Your task to perform on an android device: Is it going to rain tomorrow? Image 0: 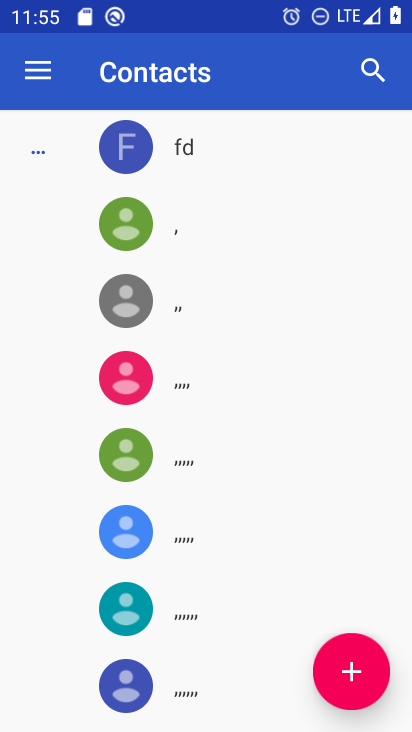
Step 0: press home button
Your task to perform on an android device: Is it going to rain tomorrow? Image 1: 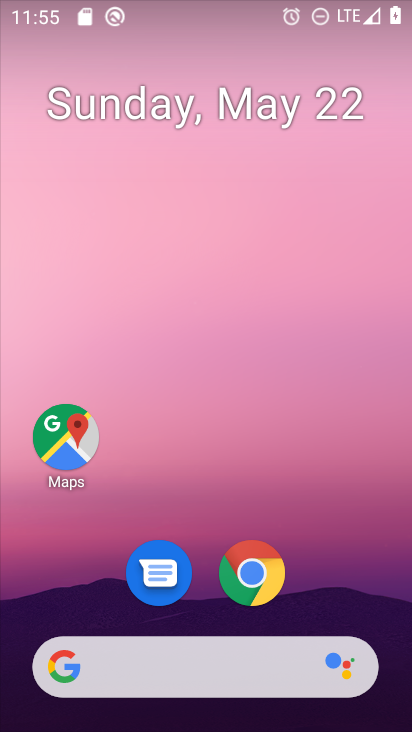
Step 1: click (171, 663)
Your task to perform on an android device: Is it going to rain tomorrow? Image 2: 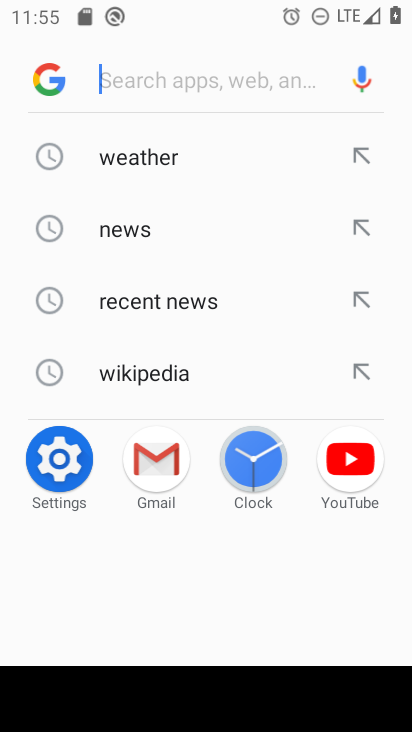
Step 2: type "is it going to rain tomorrow"
Your task to perform on an android device: Is it going to rain tomorrow? Image 3: 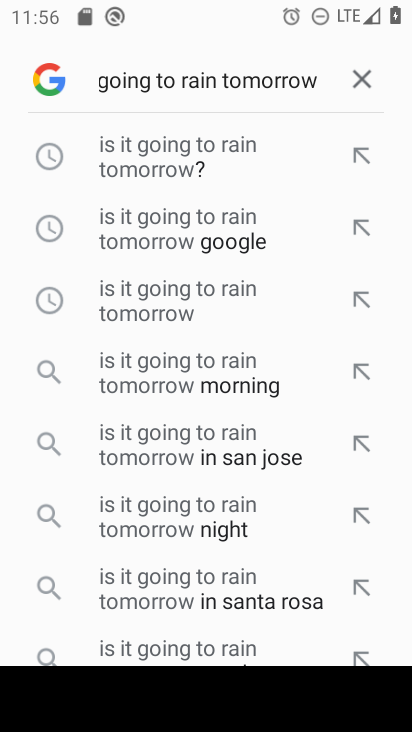
Step 3: click (203, 149)
Your task to perform on an android device: Is it going to rain tomorrow? Image 4: 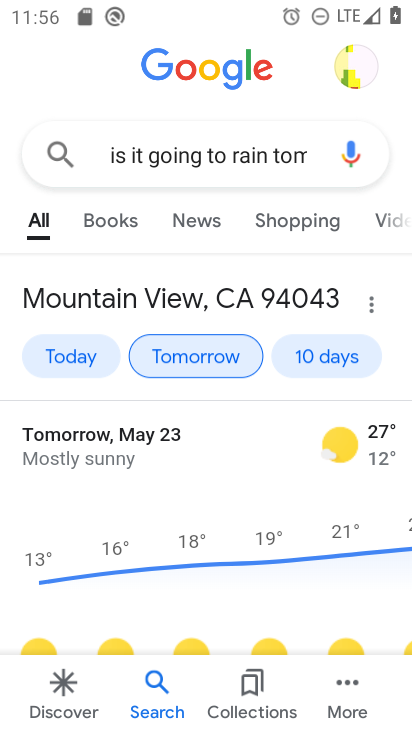
Step 4: task complete